Your task to perform on an android device: visit the assistant section in the google photos Image 0: 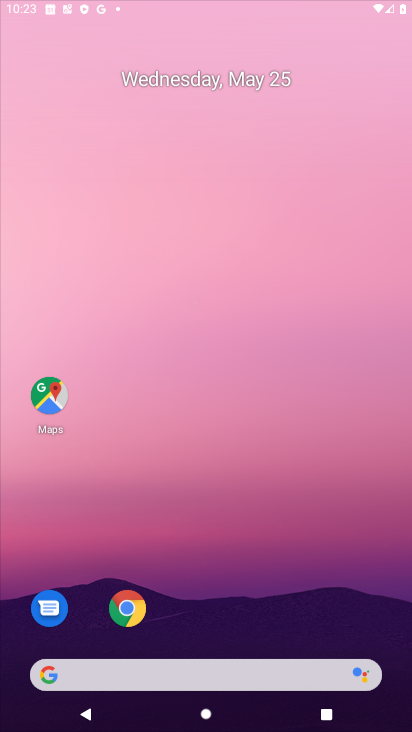
Step 0: click (307, 272)
Your task to perform on an android device: visit the assistant section in the google photos Image 1: 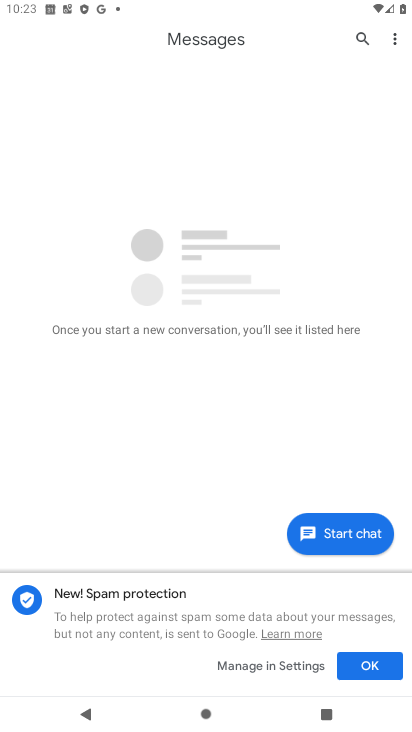
Step 1: press home button
Your task to perform on an android device: visit the assistant section in the google photos Image 2: 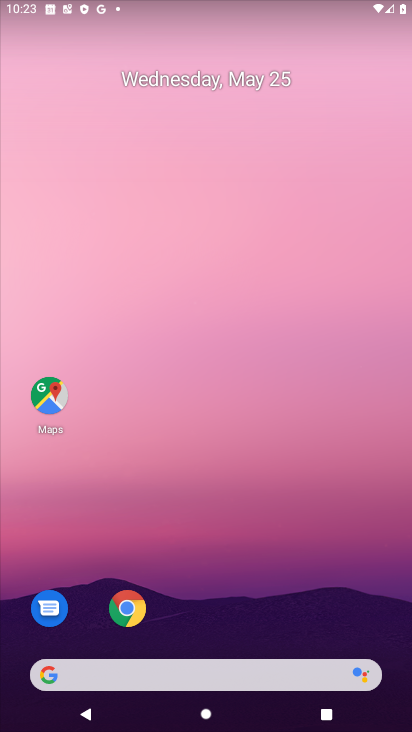
Step 2: drag from (250, 654) to (307, 9)
Your task to perform on an android device: visit the assistant section in the google photos Image 3: 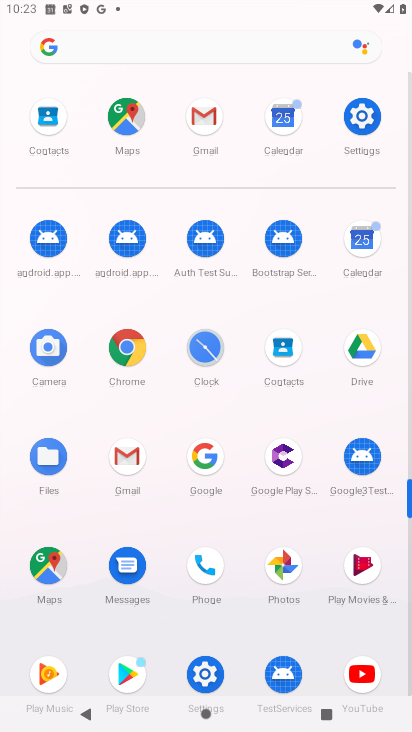
Step 3: click (280, 574)
Your task to perform on an android device: visit the assistant section in the google photos Image 4: 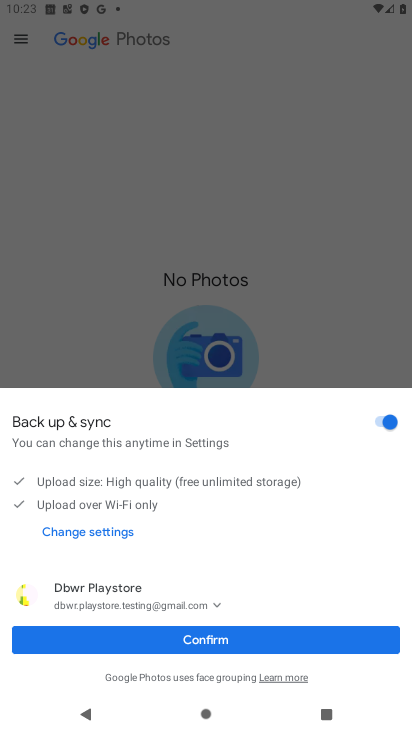
Step 4: click (194, 647)
Your task to perform on an android device: visit the assistant section in the google photos Image 5: 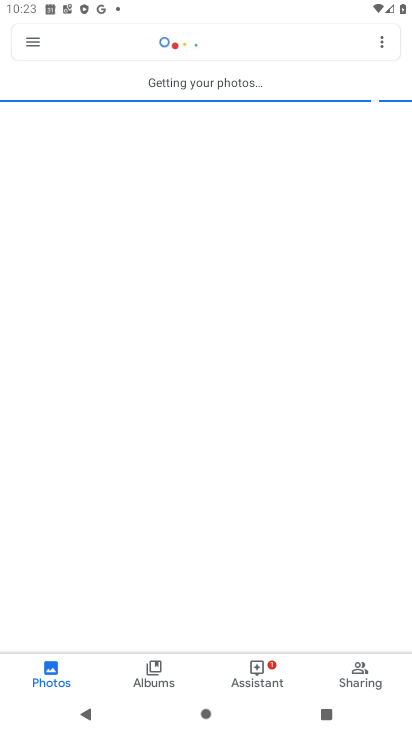
Step 5: click (262, 674)
Your task to perform on an android device: visit the assistant section in the google photos Image 6: 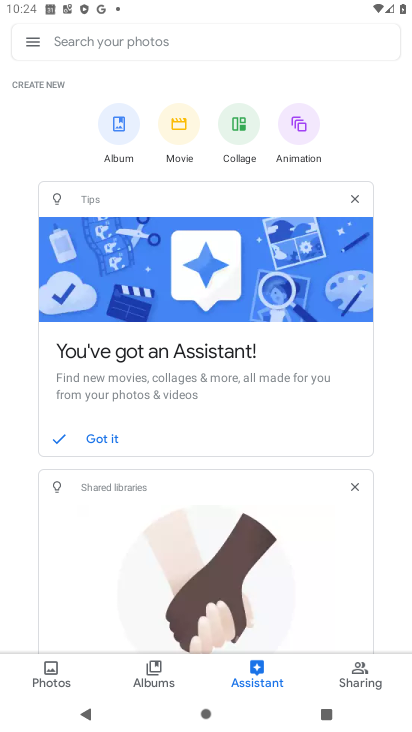
Step 6: task complete